Your task to perform on an android device: Open Google Maps Image 0: 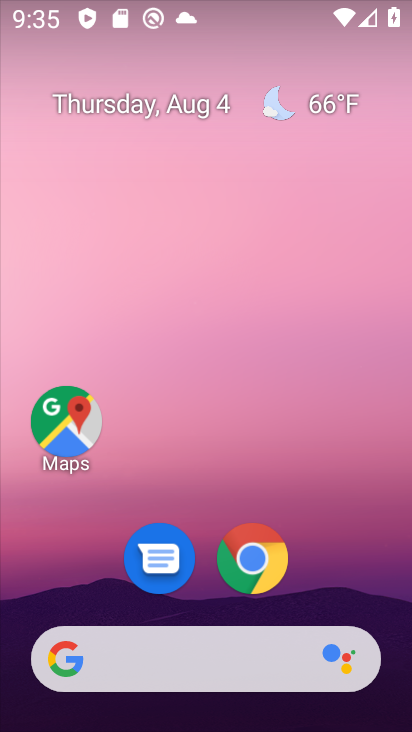
Step 0: drag from (357, 528) to (353, 139)
Your task to perform on an android device: Open Google Maps Image 1: 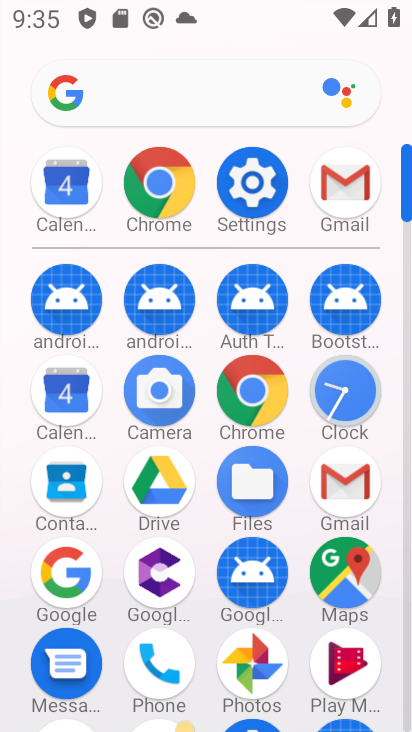
Step 1: click (333, 563)
Your task to perform on an android device: Open Google Maps Image 2: 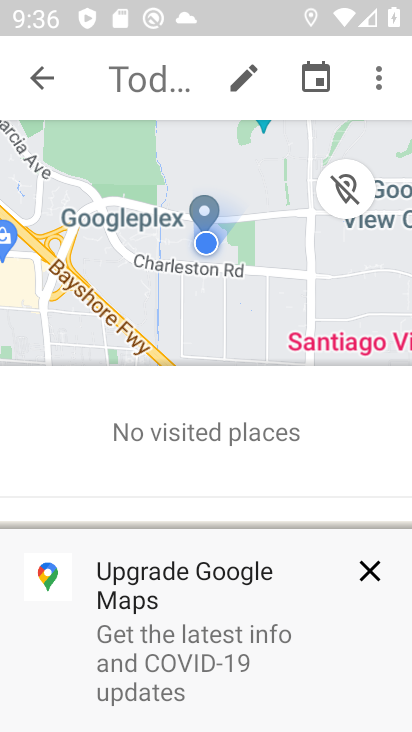
Step 2: task complete